Your task to perform on an android device: uninstall "ZOOM Cloud Meetings" Image 0: 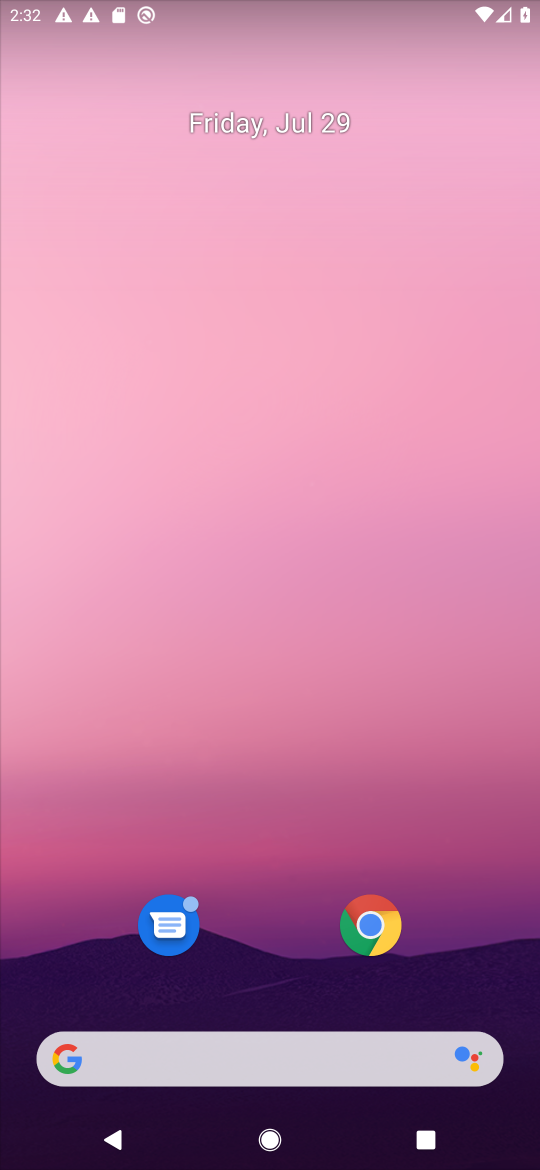
Step 0: drag from (271, 966) to (334, 17)
Your task to perform on an android device: uninstall "ZOOM Cloud Meetings" Image 1: 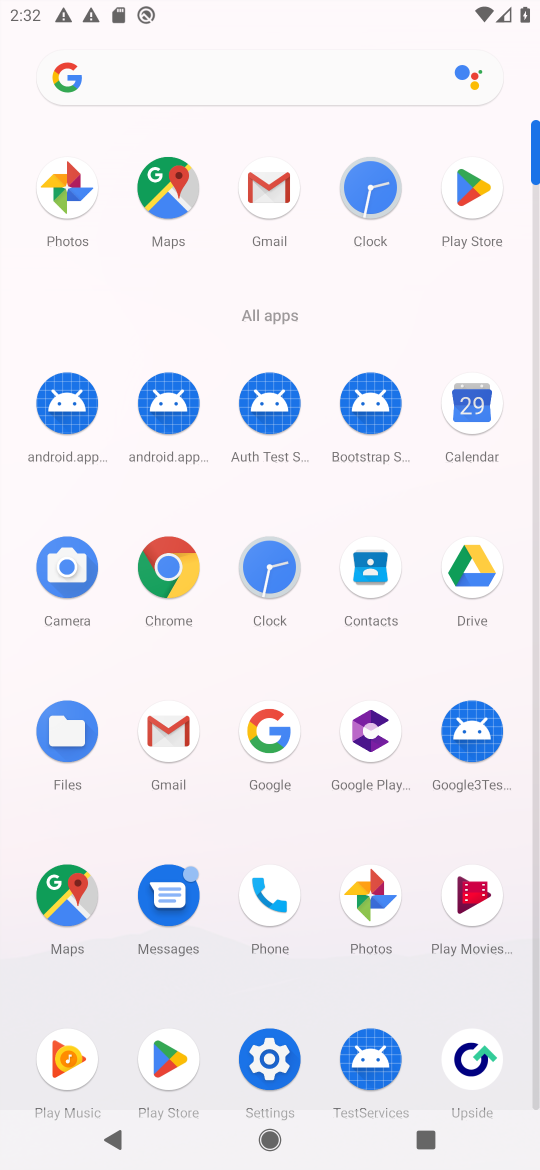
Step 1: click (486, 186)
Your task to perform on an android device: uninstall "ZOOM Cloud Meetings" Image 2: 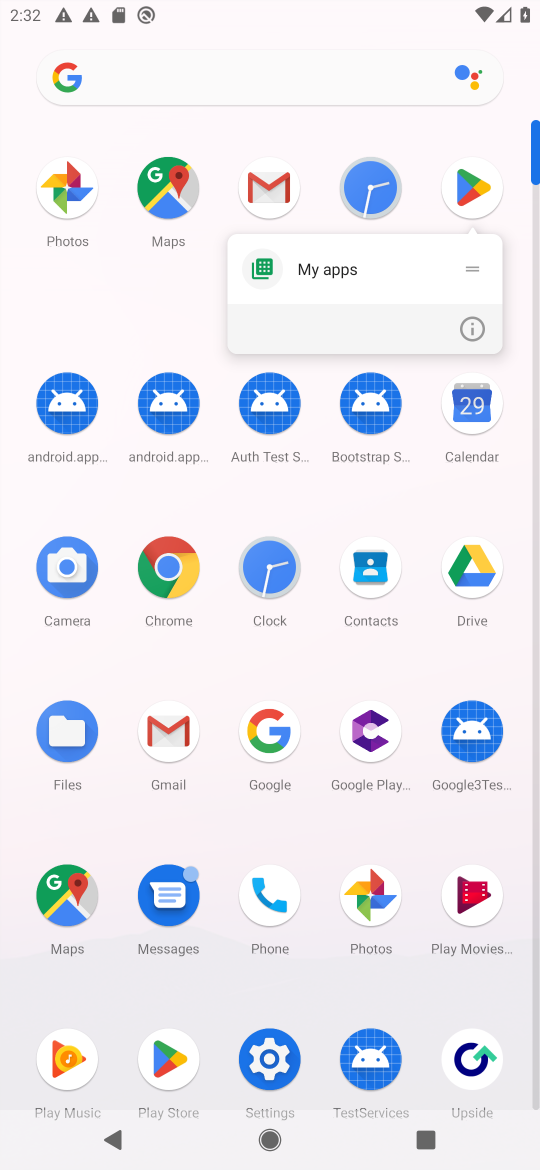
Step 2: click (480, 193)
Your task to perform on an android device: uninstall "ZOOM Cloud Meetings" Image 3: 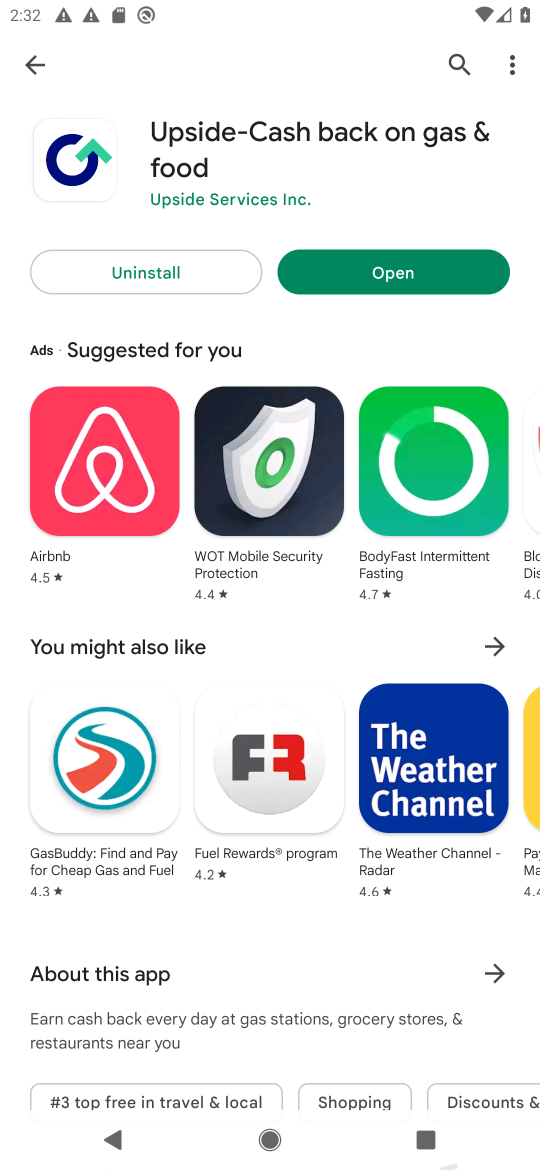
Step 3: click (451, 60)
Your task to perform on an android device: uninstall "ZOOM Cloud Meetings" Image 4: 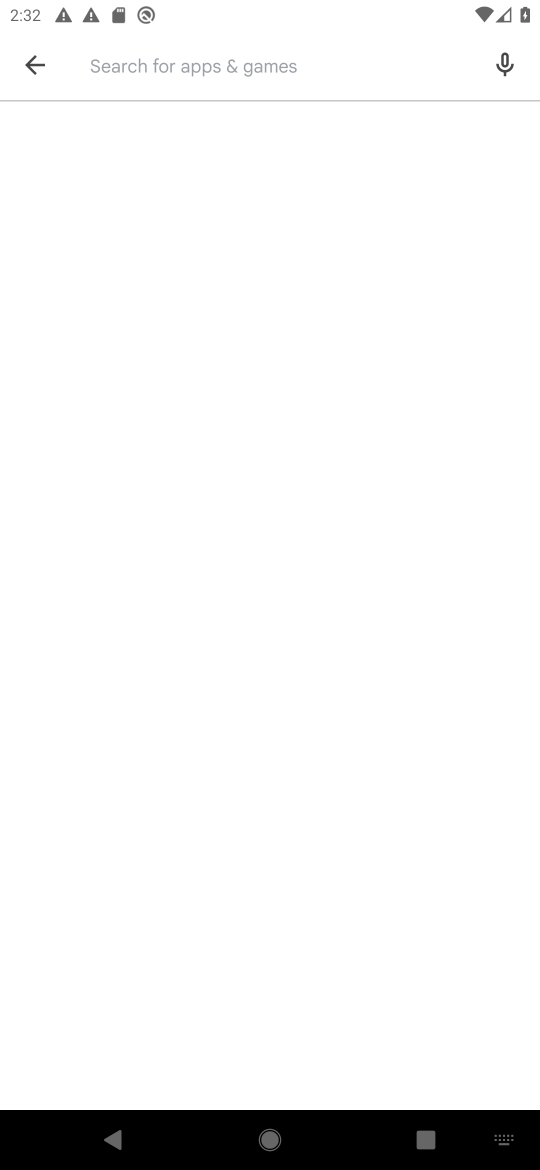
Step 4: type "ZOOM Cloud Meetings"
Your task to perform on an android device: uninstall "ZOOM Cloud Meetings" Image 5: 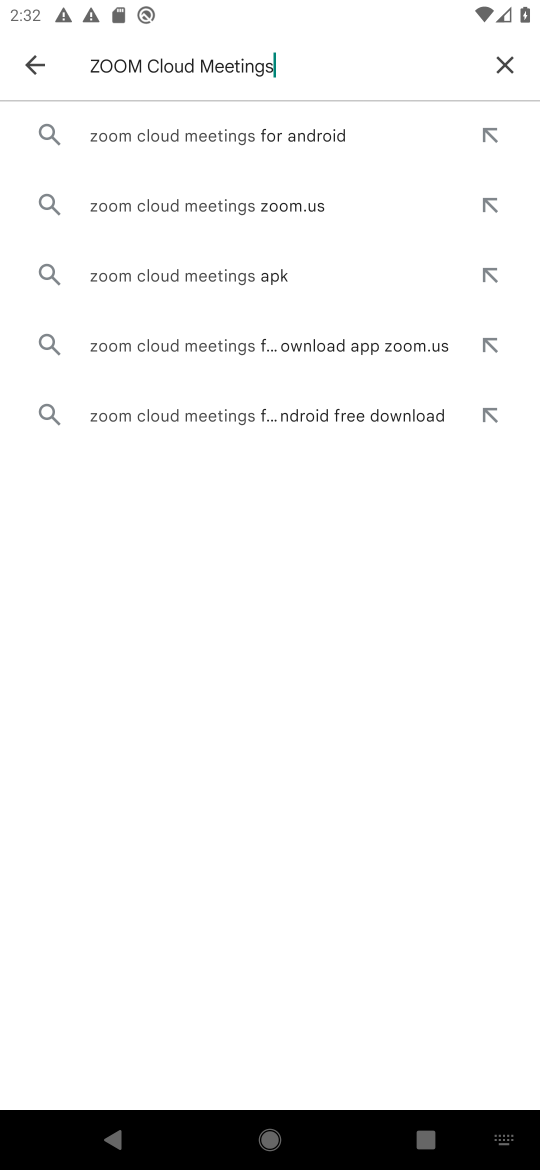
Step 5: click (197, 140)
Your task to perform on an android device: uninstall "ZOOM Cloud Meetings" Image 6: 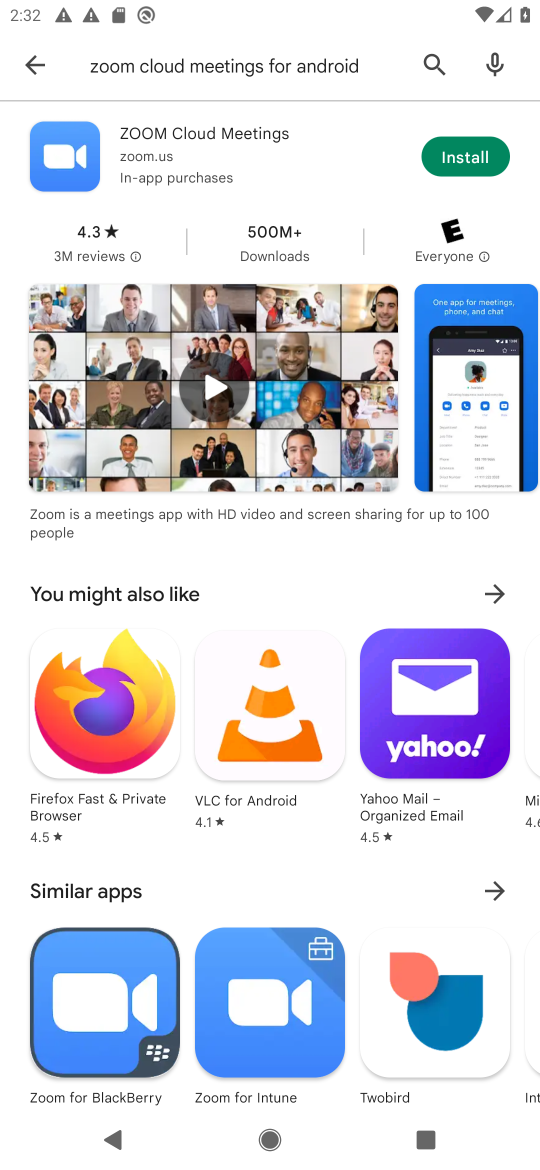
Step 6: task complete